Your task to perform on an android device: turn off notifications settings in the gmail app Image 0: 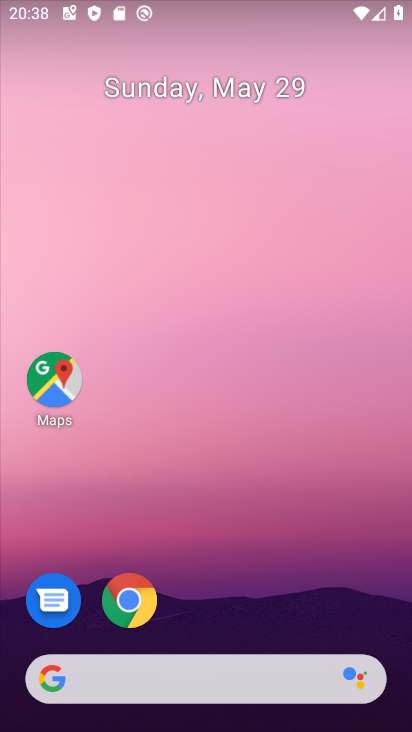
Step 0: drag from (318, 574) to (310, 188)
Your task to perform on an android device: turn off notifications settings in the gmail app Image 1: 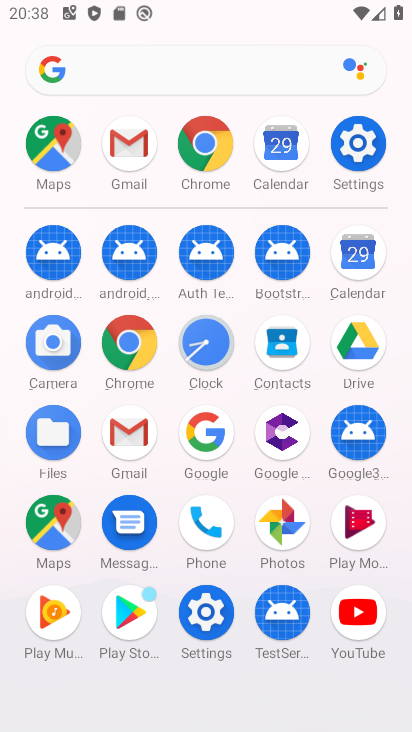
Step 1: click (117, 451)
Your task to perform on an android device: turn off notifications settings in the gmail app Image 2: 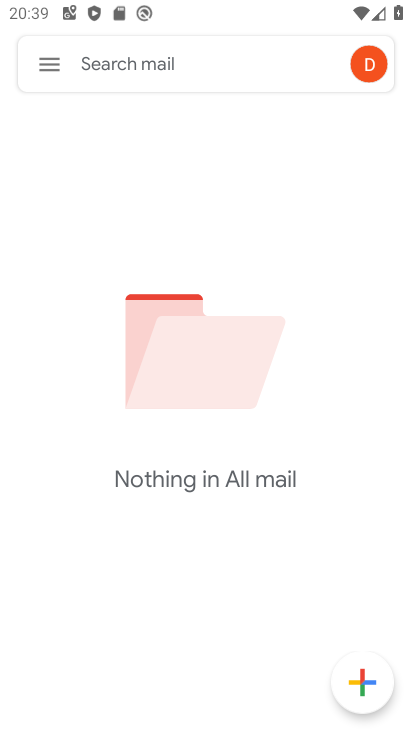
Step 2: click (44, 71)
Your task to perform on an android device: turn off notifications settings in the gmail app Image 3: 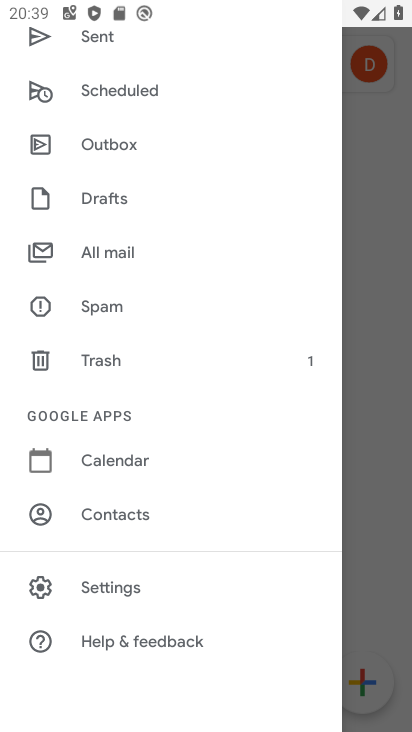
Step 3: click (138, 583)
Your task to perform on an android device: turn off notifications settings in the gmail app Image 4: 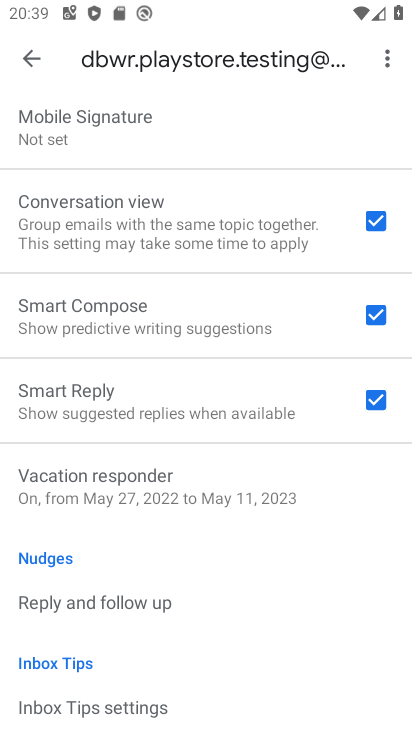
Step 4: drag from (234, 666) to (219, 381)
Your task to perform on an android device: turn off notifications settings in the gmail app Image 5: 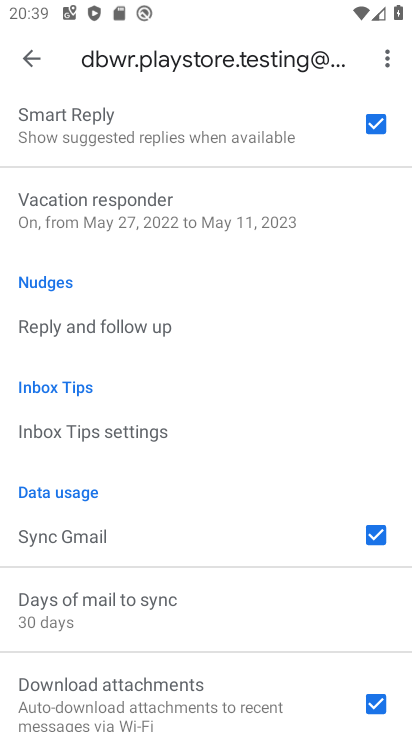
Step 5: drag from (247, 239) to (264, 656)
Your task to perform on an android device: turn off notifications settings in the gmail app Image 6: 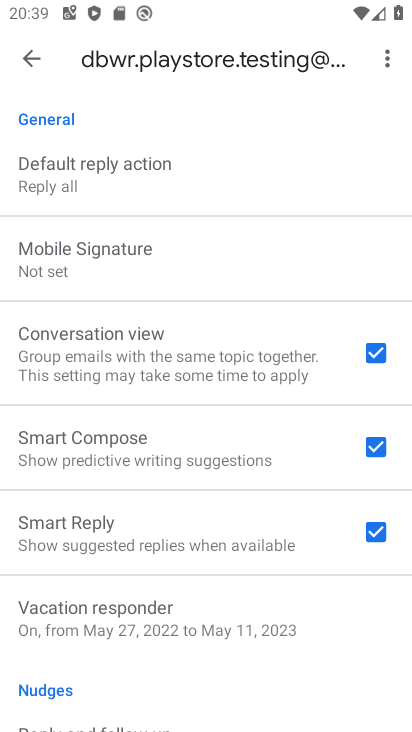
Step 6: drag from (254, 204) to (235, 644)
Your task to perform on an android device: turn off notifications settings in the gmail app Image 7: 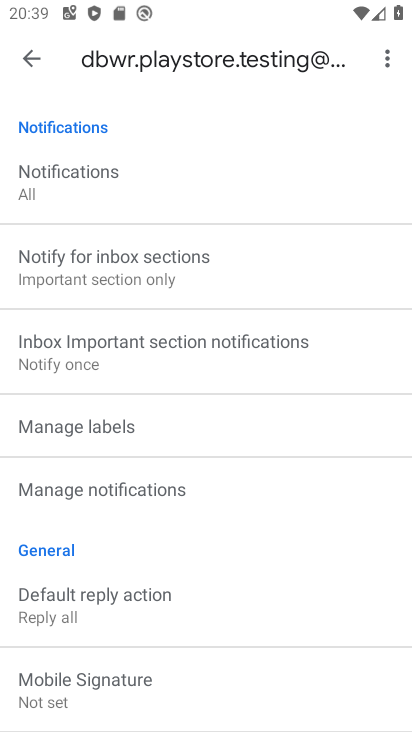
Step 7: click (137, 170)
Your task to perform on an android device: turn off notifications settings in the gmail app Image 8: 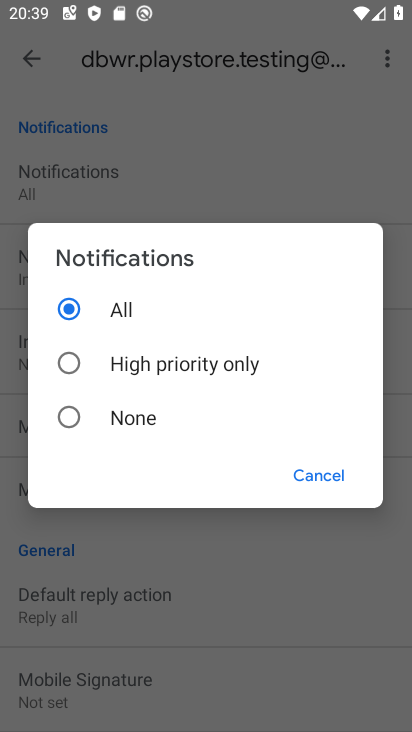
Step 8: click (64, 419)
Your task to perform on an android device: turn off notifications settings in the gmail app Image 9: 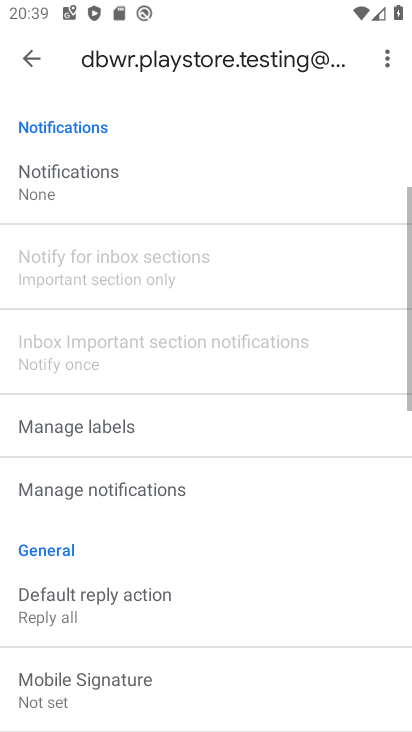
Step 9: task complete